Your task to perform on an android device: Open display settings Image 0: 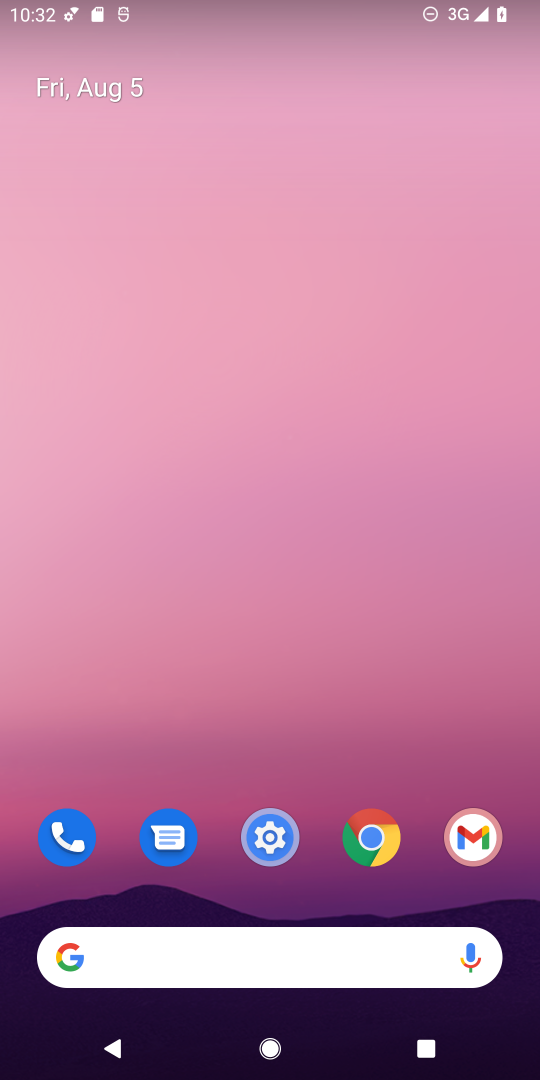
Step 0: click (294, 788)
Your task to perform on an android device: Open display settings Image 1: 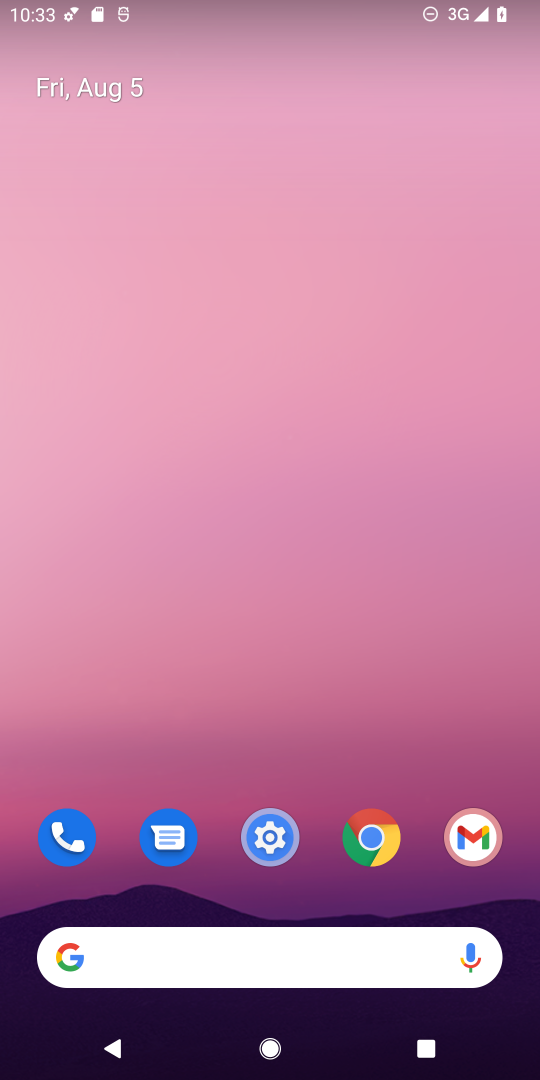
Step 1: click (276, 828)
Your task to perform on an android device: Open display settings Image 2: 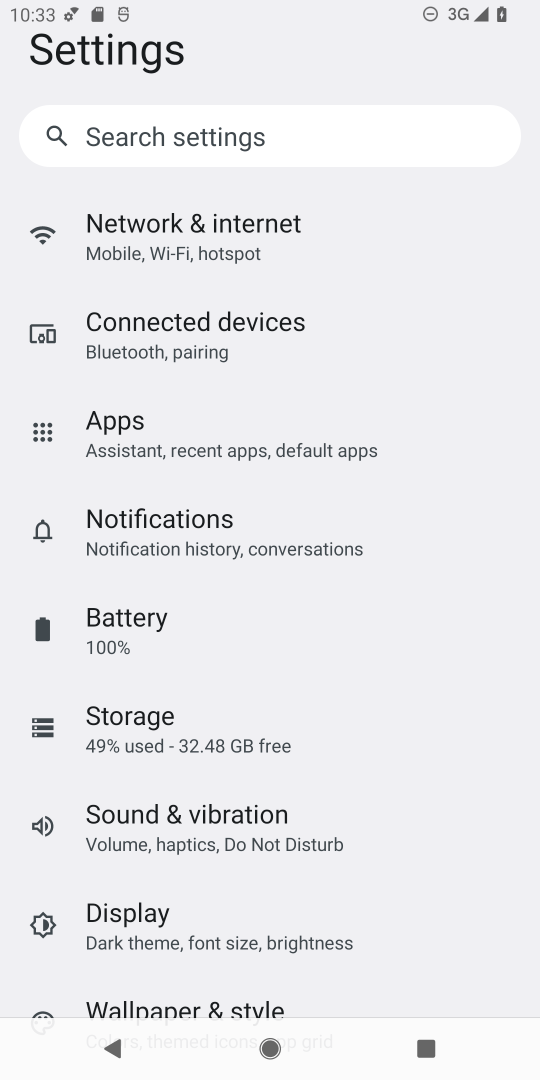
Step 2: drag from (282, 688) to (302, 474)
Your task to perform on an android device: Open display settings Image 3: 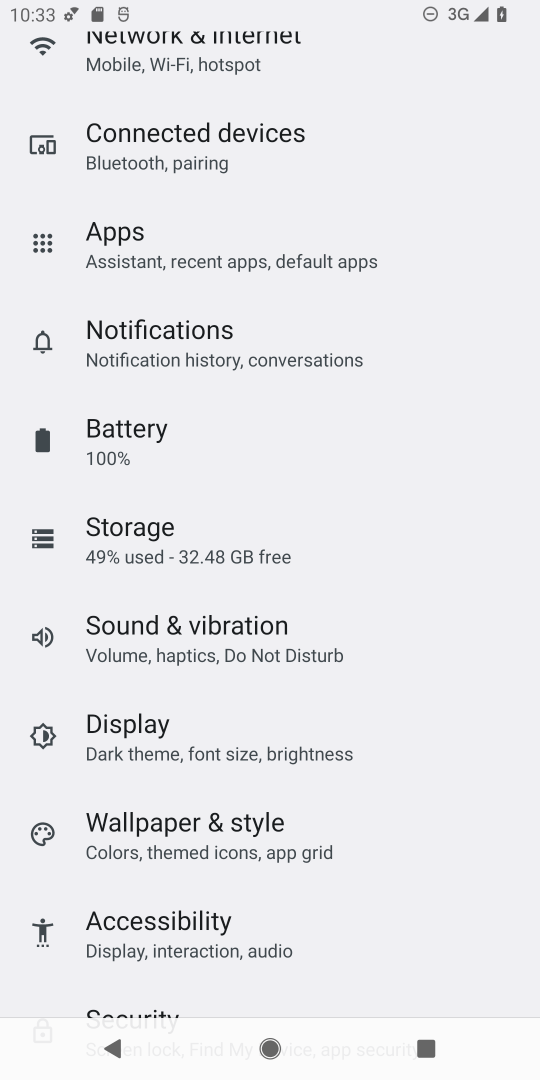
Step 3: click (228, 739)
Your task to perform on an android device: Open display settings Image 4: 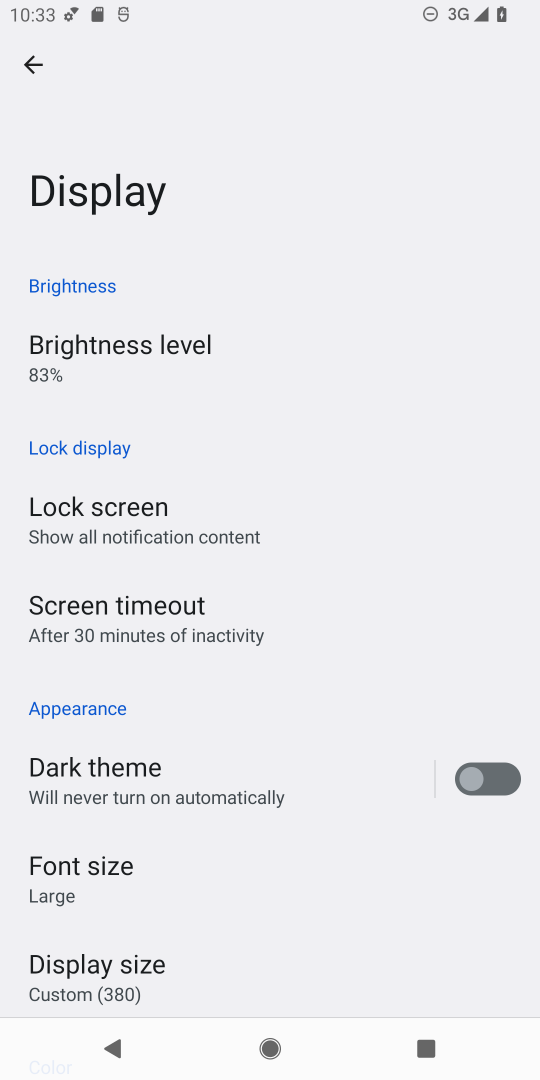
Step 4: task complete